Your task to perform on an android device: turn on priority inbox in the gmail app Image 0: 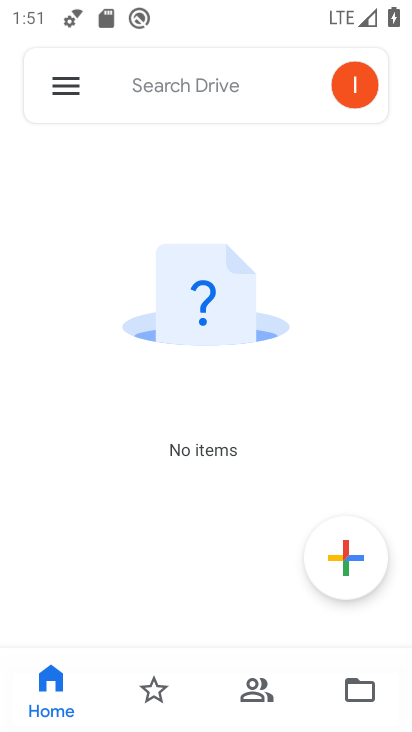
Step 0: press home button
Your task to perform on an android device: turn on priority inbox in the gmail app Image 1: 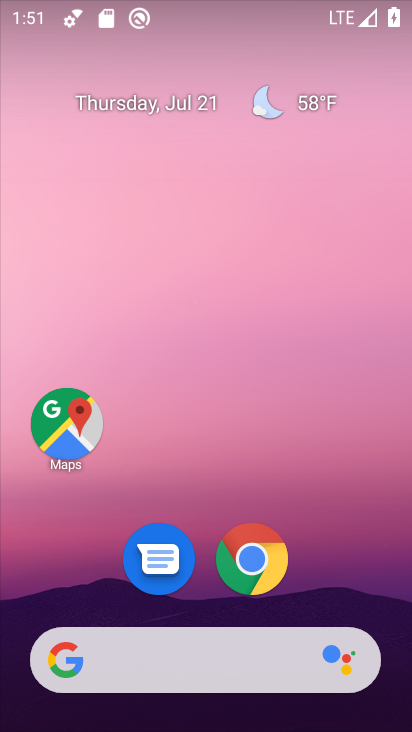
Step 1: drag from (374, 533) to (376, 110)
Your task to perform on an android device: turn on priority inbox in the gmail app Image 2: 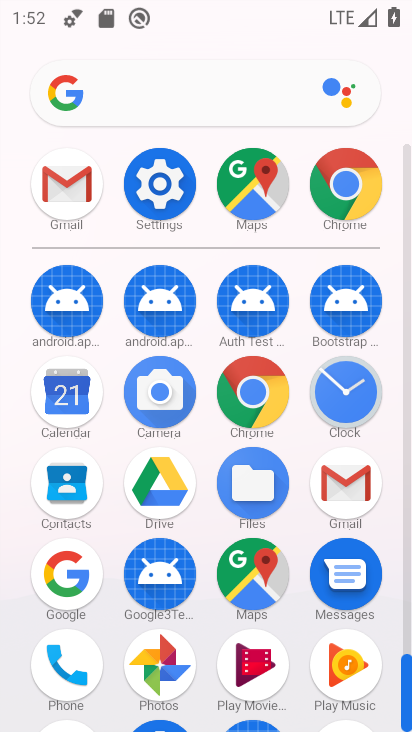
Step 2: click (355, 480)
Your task to perform on an android device: turn on priority inbox in the gmail app Image 3: 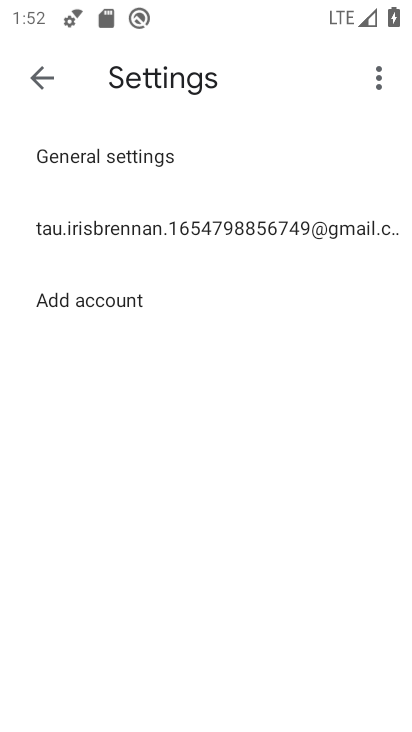
Step 3: press back button
Your task to perform on an android device: turn on priority inbox in the gmail app Image 4: 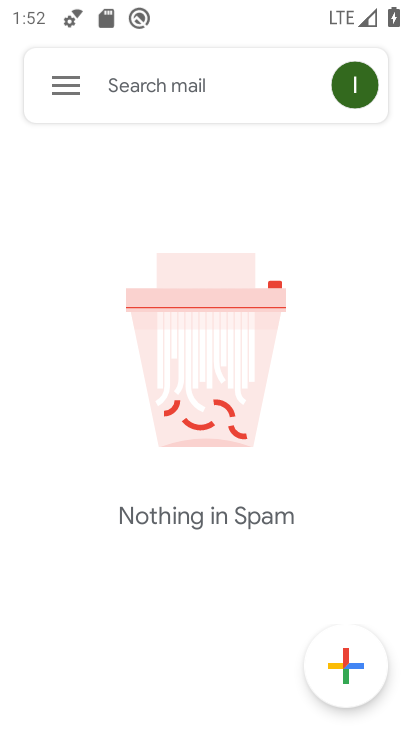
Step 4: click (63, 84)
Your task to perform on an android device: turn on priority inbox in the gmail app Image 5: 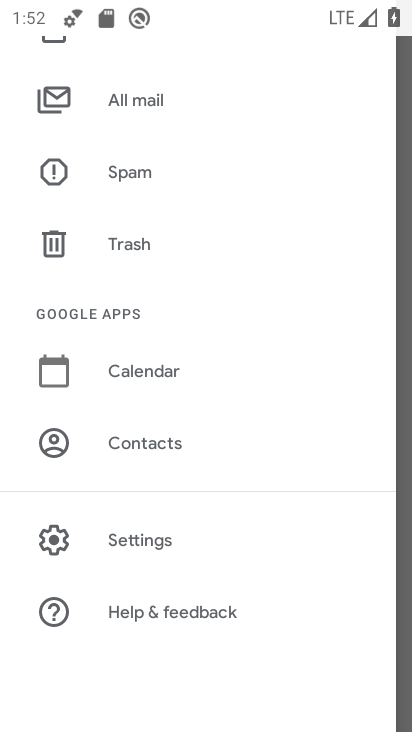
Step 5: click (181, 542)
Your task to perform on an android device: turn on priority inbox in the gmail app Image 6: 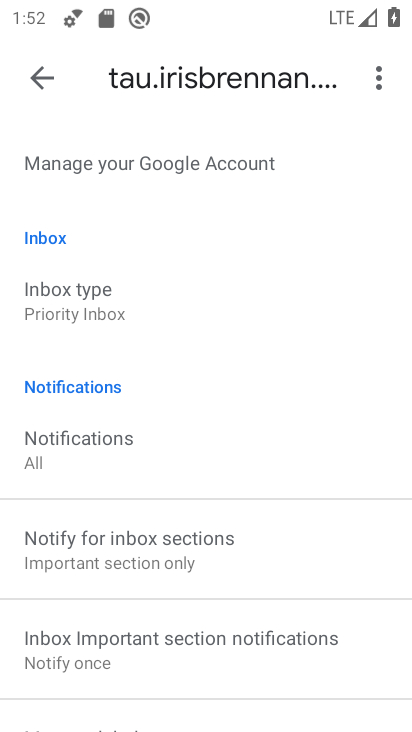
Step 6: drag from (271, 480) to (274, 381)
Your task to perform on an android device: turn on priority inbox in the gmail app Image 7: 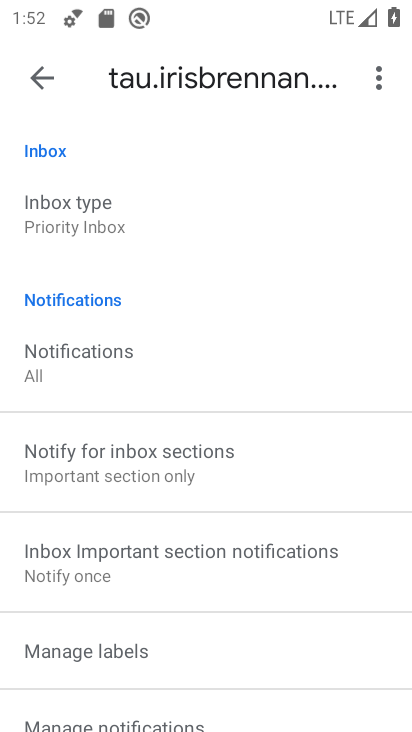
Step 7: drag from (287, 571) to (290, 448)
Your task to perform on an android device: turn on priority inbox in the gmail app Image 8: 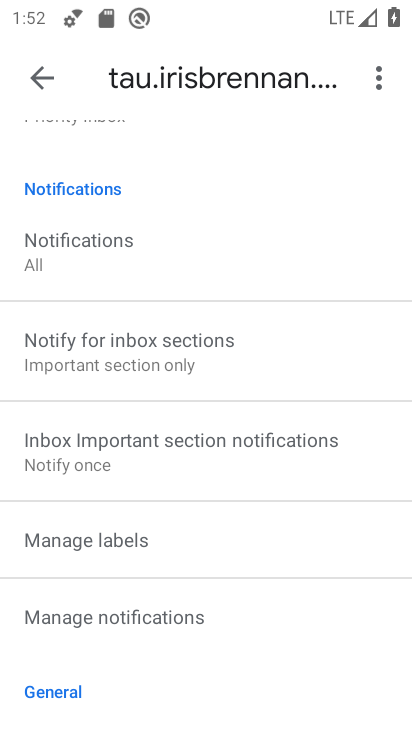
Step 8: drag from (291, 538) to (293, 458)
Your task to perform on an android device: turn on priority inbox in the gmail app Image 9: 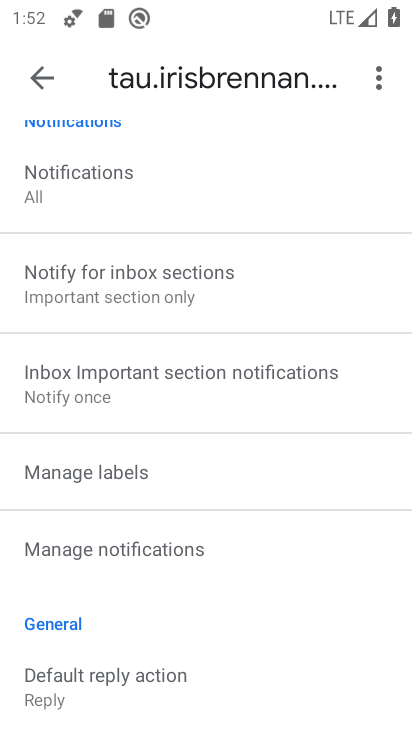
Step 9: drag from (294, 548) to (301, 445)
Your task to perform on an android device: turn on priority inbox in the gmail app Image 10: 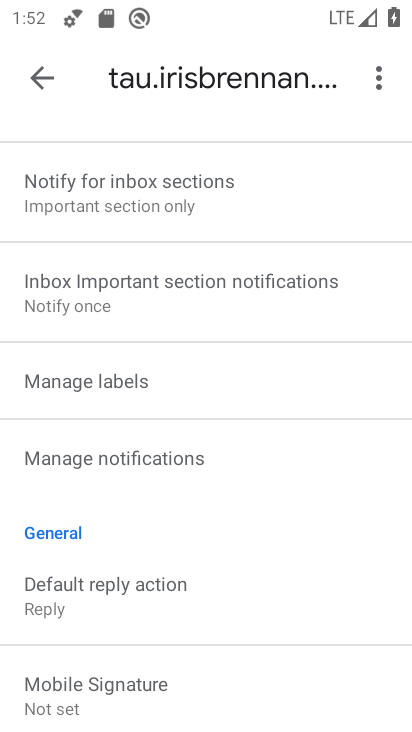
Step 10: drag from (306, 531) to (309, 436)
Your task to perform on an android device: turn on priority inbox in the gmail app Image 11: 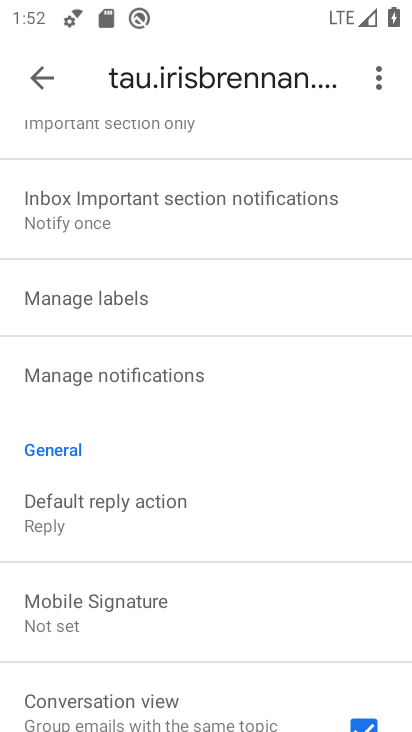
Step 11: drag from (287, 566) to (289, 445)
Your task to perform on an android device: turn on priority inbox in the gmail app Image 12: 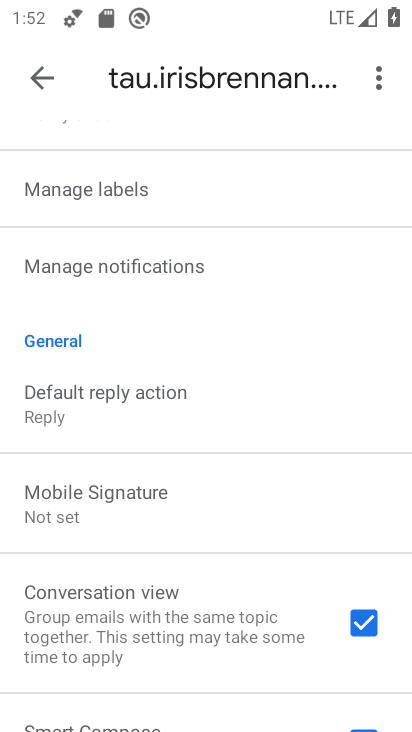
Step 12: drag from (289, 293) to (292, 406)
Your task to perform on an android device: turn on priority inbox in the gmail app Image 13: 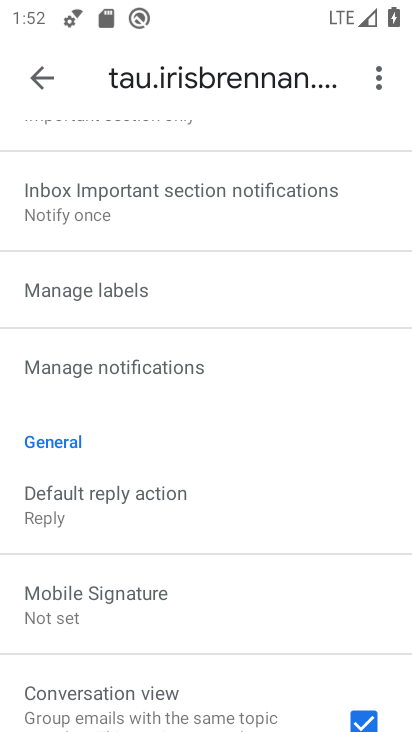
Step 13: drag from (292, 272) to (296, 406)
Your task to perform on an android device: turn on priority inbox in the gmail app Image 14: 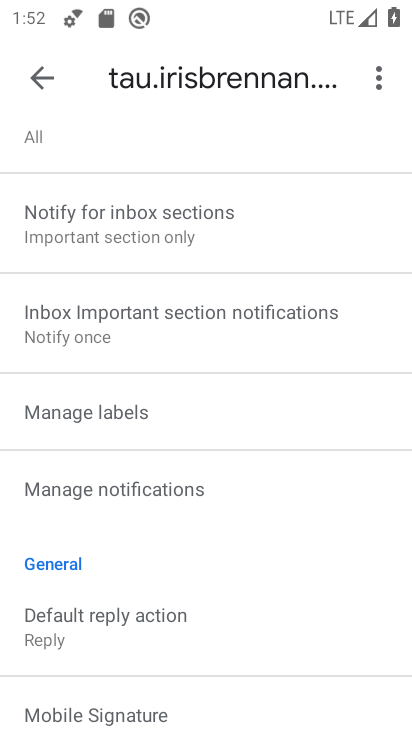
Step 14: drag from (300, 244) to (301, 380)
Your task to perform on an android device: turn on priority inbox in the gmail app Image 15: 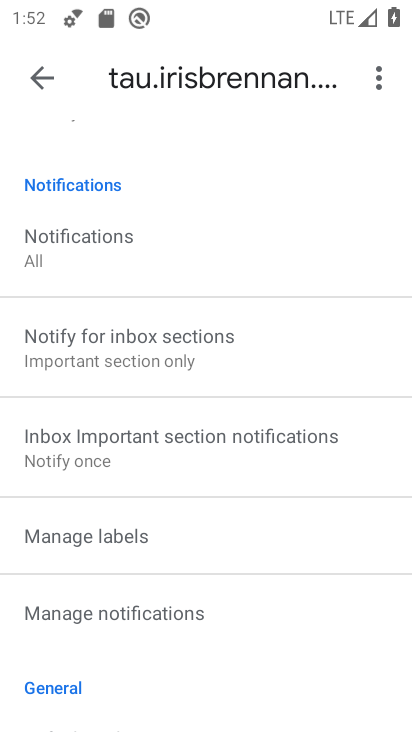
Step 15: drag from (284, 230) to (286, 395)
Your task to perform on an android device: turn on priority inbox in the gmail app Image 16: 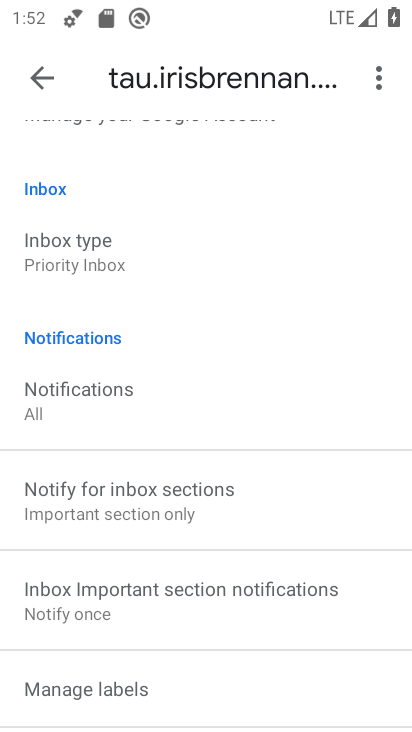
Step 16: drag from (282, 224) to (287, 356)
Your task to perform on an android device: turn on priority inbox in the gmail app Image 17: 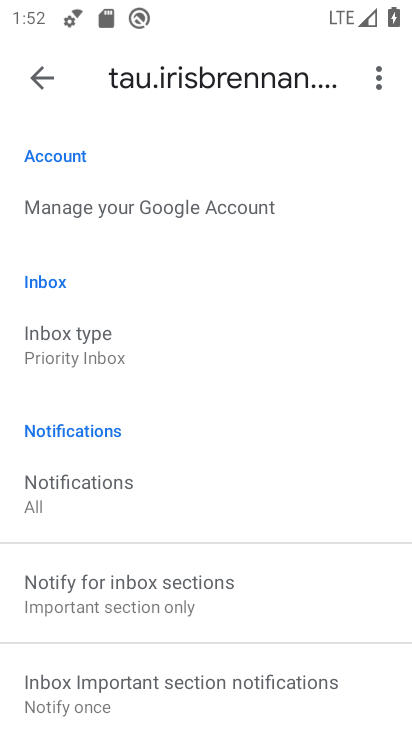
Step 17: drag from (292, 439) to (296, 361)
Your task to perform on an android device: turn on priority inbox in the gmail app Image 18: 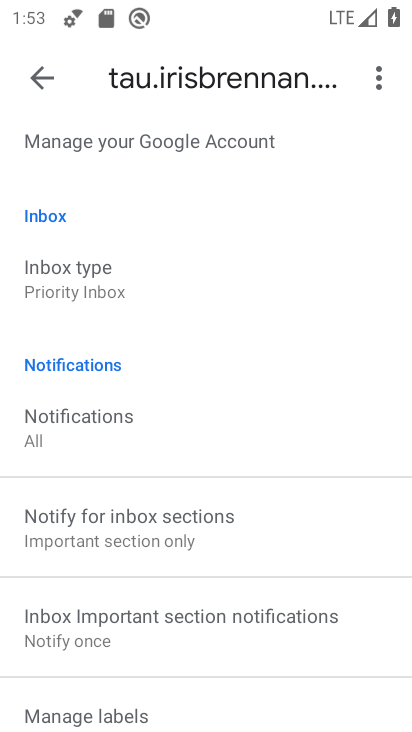
Step 18: click (125, 286)
Your task to perform on an android device: turn on priority inbox in the gmail app Image 19: 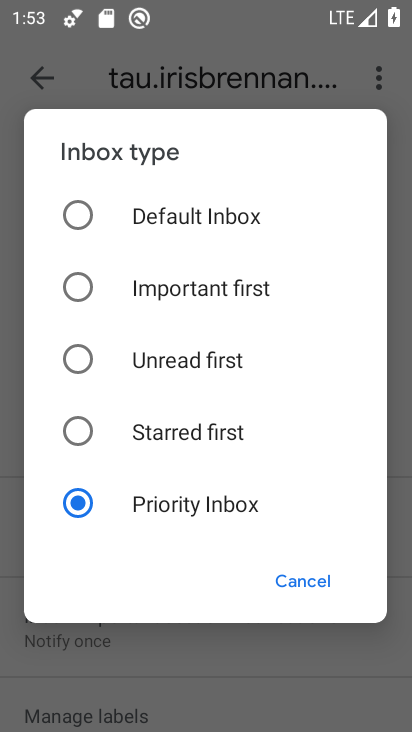
Step 19: task complete